Your task to perform on an android device: Open Google Chrome and click the shortcut for Amazon.com Image 0: 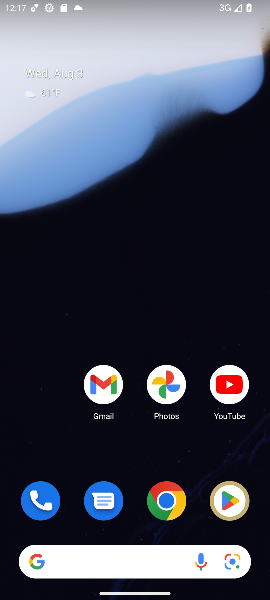
Step 0: click (173, 496)
Your task to perform on an android device: Open Google Chrome and click the shortcut for Amazon.com Image 1: 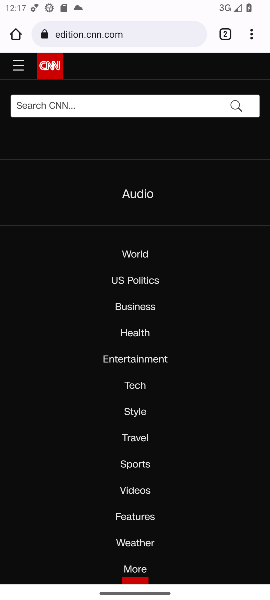
Step 1: click (163, 28)
Your task to perform on an android device: Open Google Chrome and click the shortcut for Amazon.com Image 2: 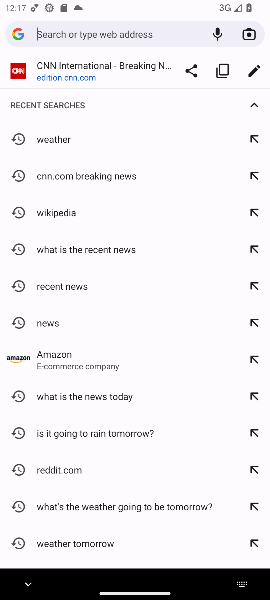
Step 2: type "amazon.com"
Your task to perform on an android device: Open Google Chrome and click the shortcut for Amazon.com Image 3: 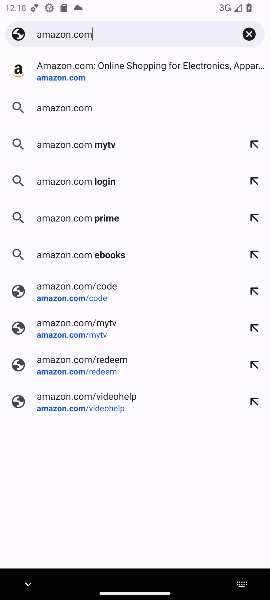
Step 3: click (186, 61)
Your task to perform on an android device: Open Google Chrome and click the shortcut for Amazon.com Image 4: 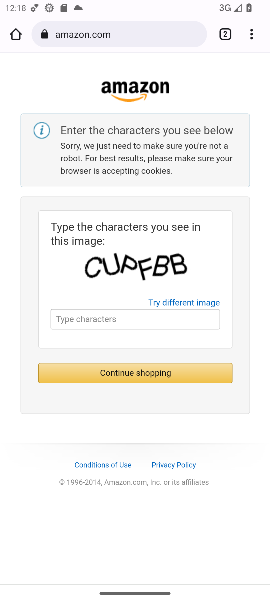
Step 4: task complete